Your task to perform on an android device: turn smart compose on in the gmail app Image 0: 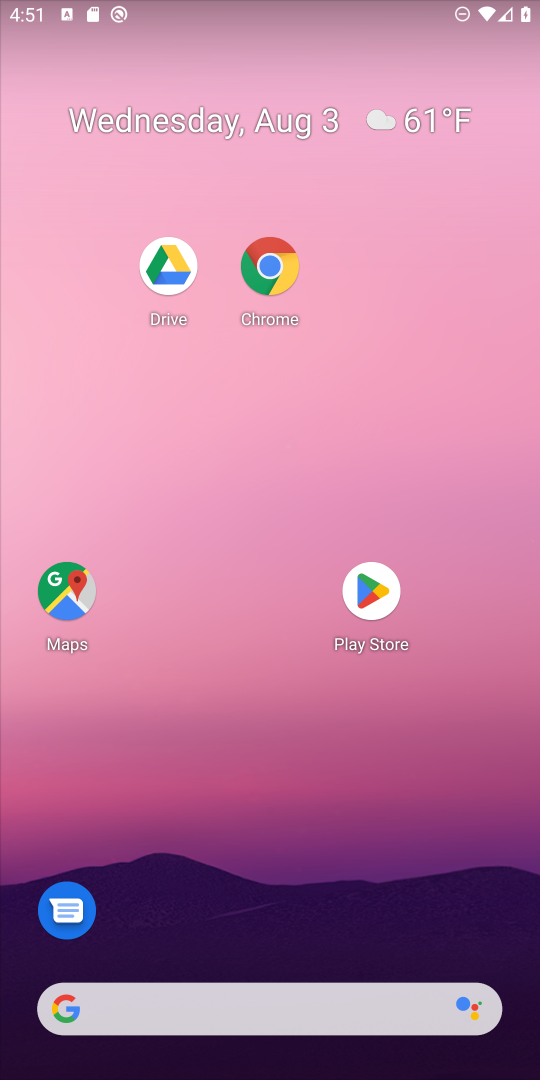
Step 0: drag from (253, 964) to (343, 0)
Your task to perform on an android device: turn smart compose on in the gmail app Image 1: 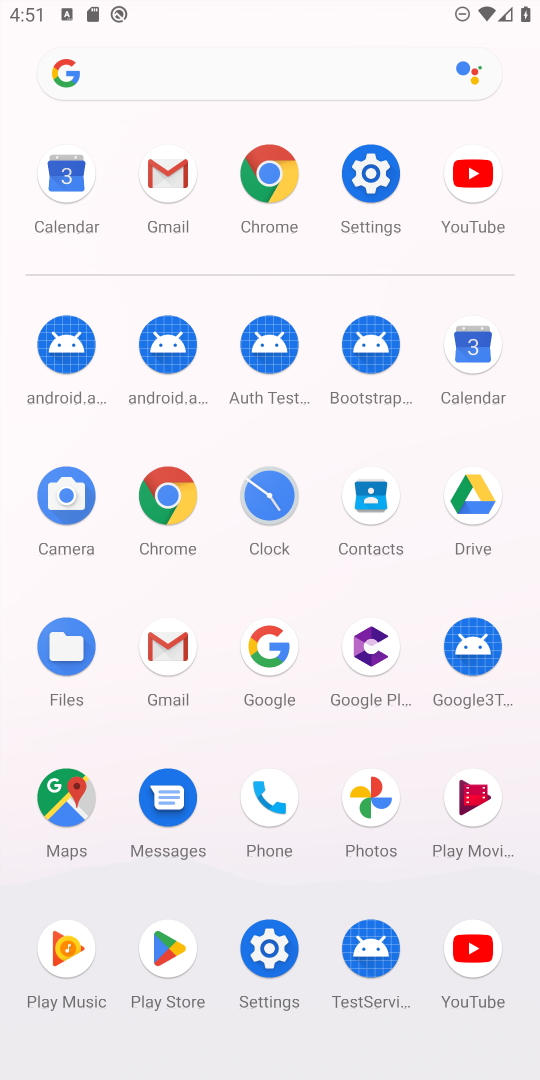
Step 1: click (181, 631)
Your task to perform on an android device: turn smart compose on in the gmail app Image 2: 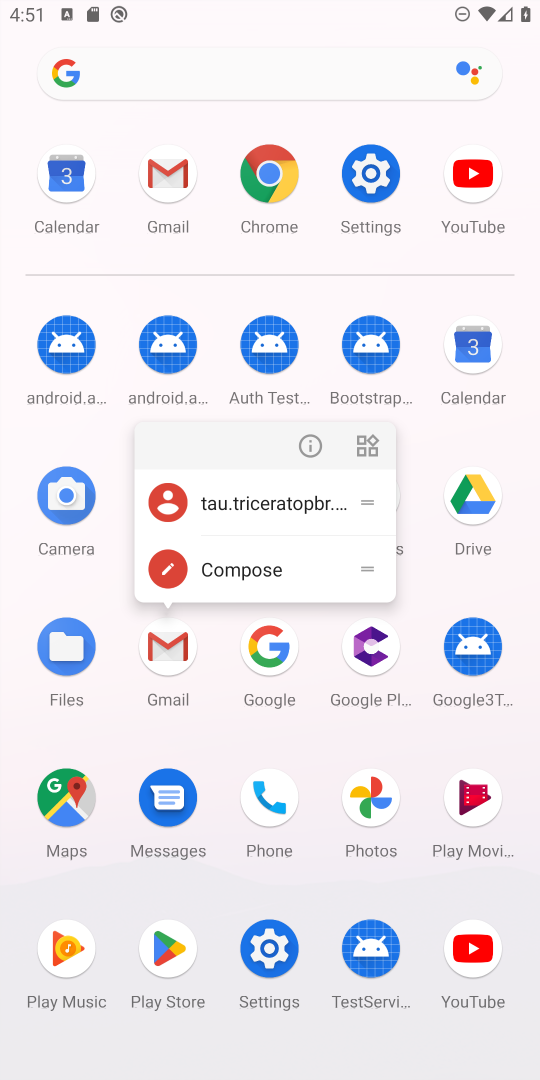
Step 2: click (153, 640)
Your task to perform on an android device: turn smart compose on in the gmail app Image 3: 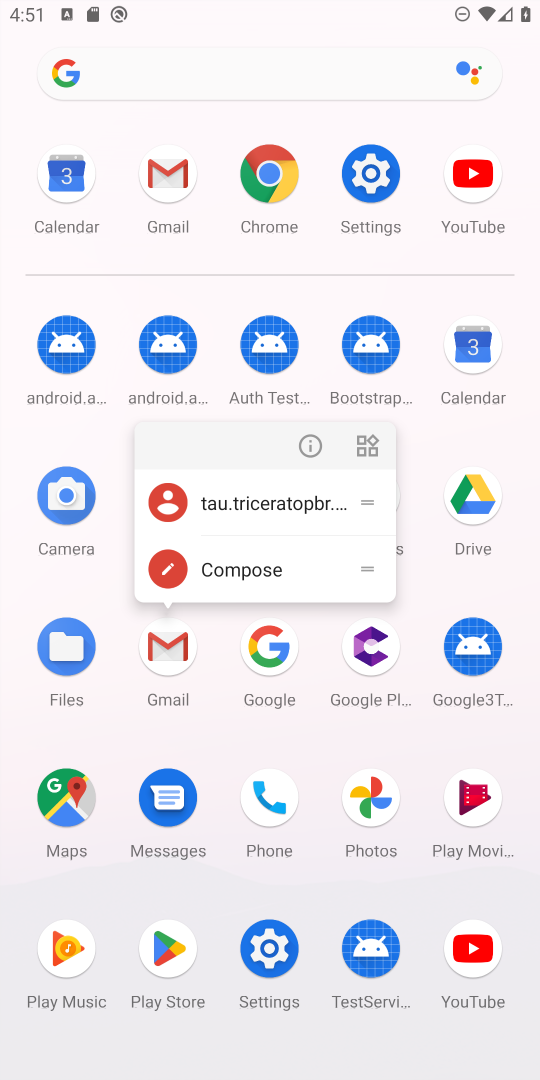
Step 3: click (155, 640)
Your task to perform on an android device: turn smart compose on in the gmail app Image 4: 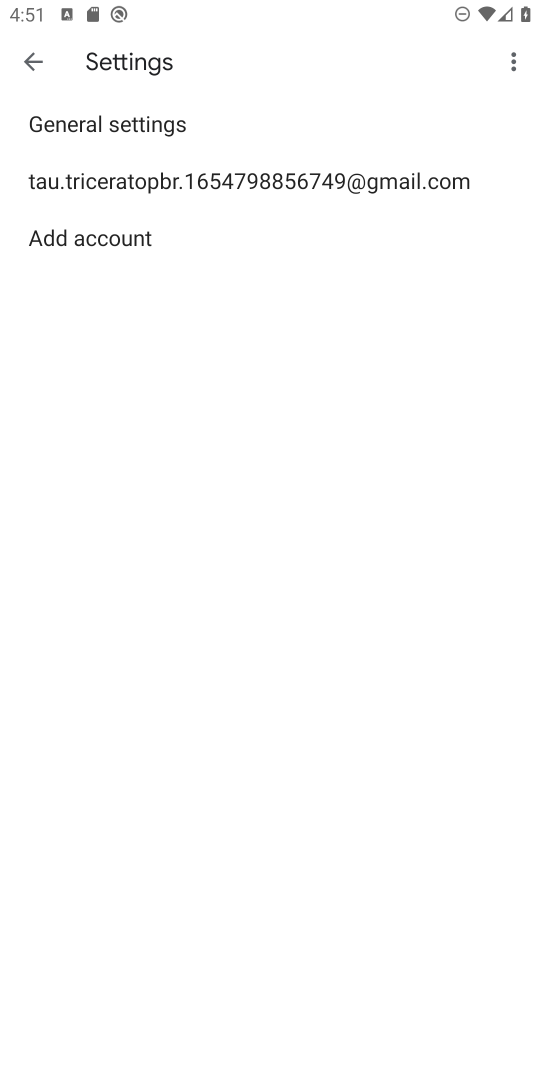
Step 4: press back button
Your task to perform on an android device: turn smart compose on in the gmail app Image 5: 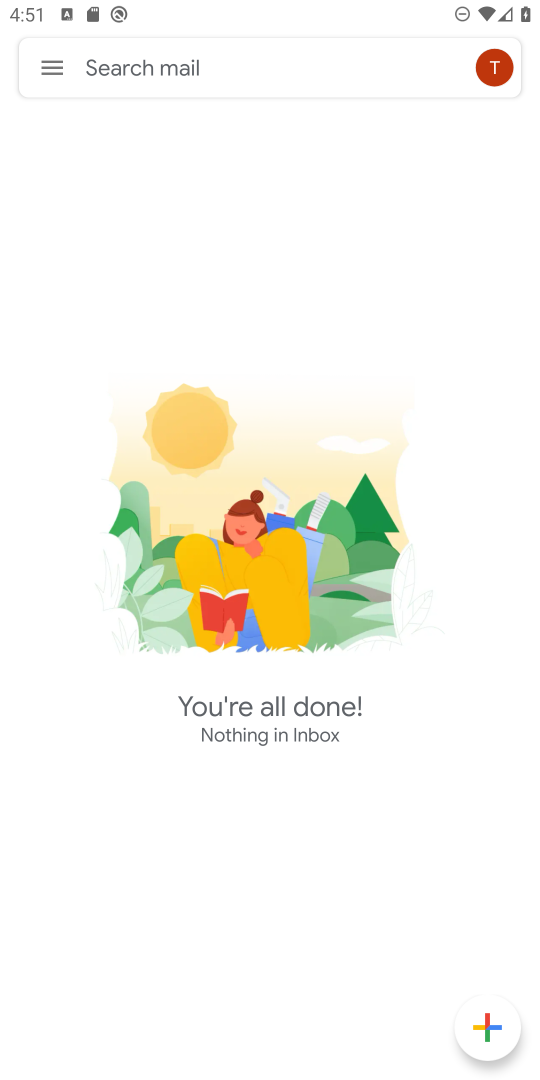
Step 5: click (59, 63)
Your task to perform on an android device: turn smart compose on in the gmail app Image 6: 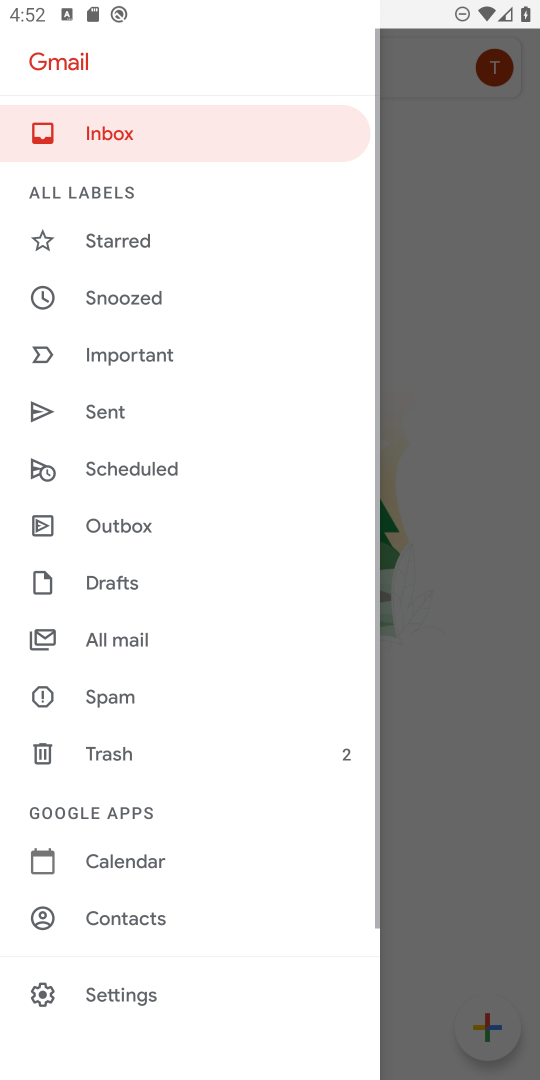
Step 6: drag from (147, 833) to (276, 2)
Your task to perform on an android device: turn smart compose on in the gmail app Image 7: 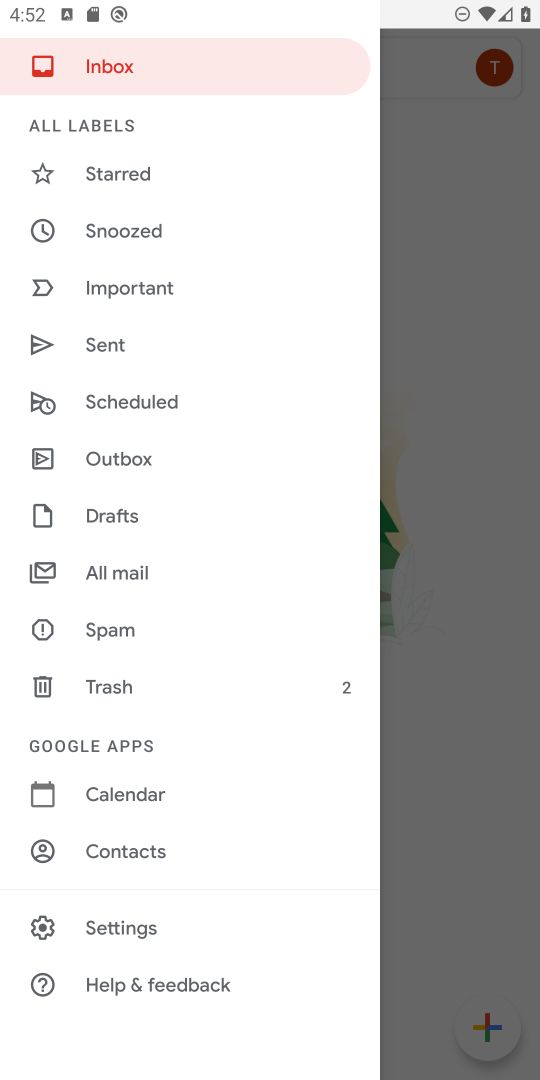
Step 7: click (176, 934)
Your task to perform on an android device: turn smart compose on in the gmail app Image 8: 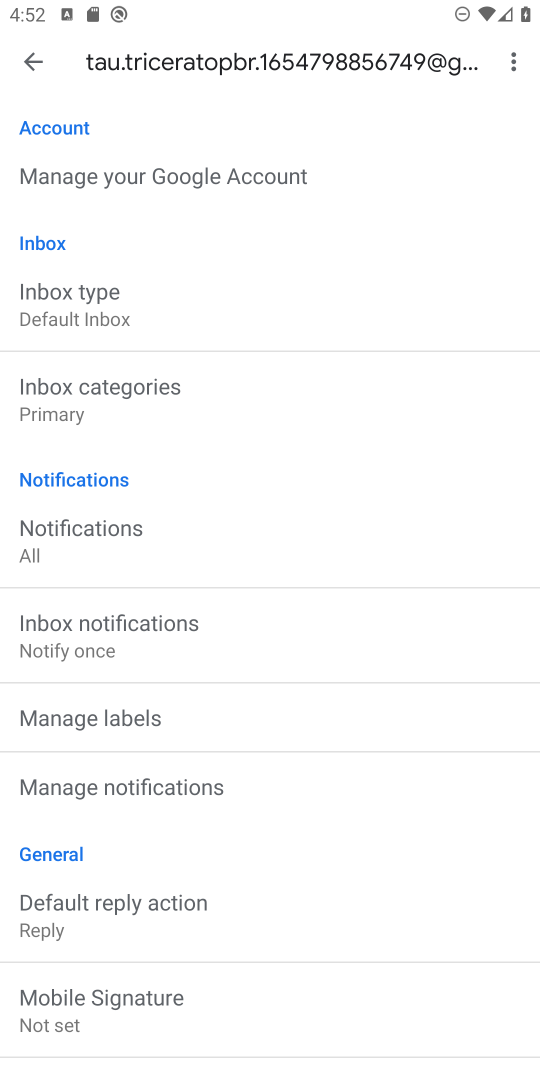
Step 8: task complete